Your task to perform on an android device: Toggle the flashlight Image 0: 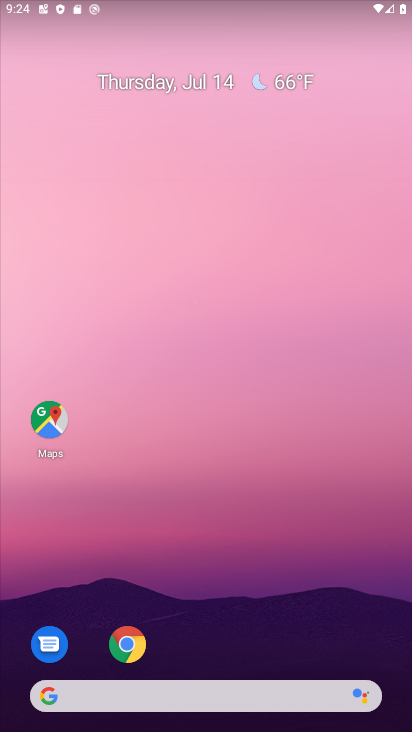
Step 0: drag from (276, 711) to (142, 110)
Your task to perform on an android device: Toggle the flashlight Image 1: 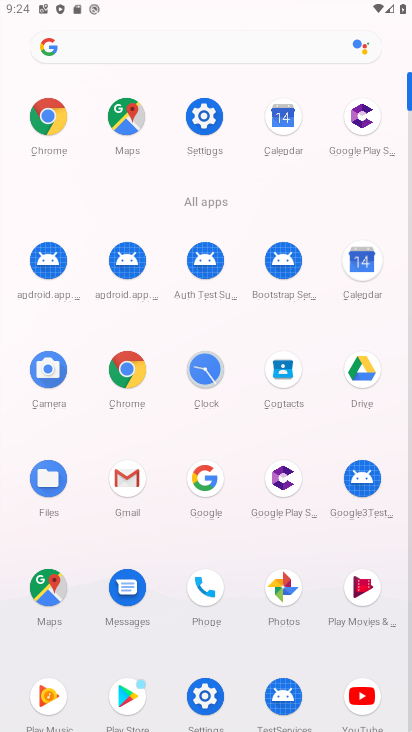
Step 1: drag from (223, 480) to (188, 138)
Your task to perform on an android device: Toggle the flashlight Image 2: 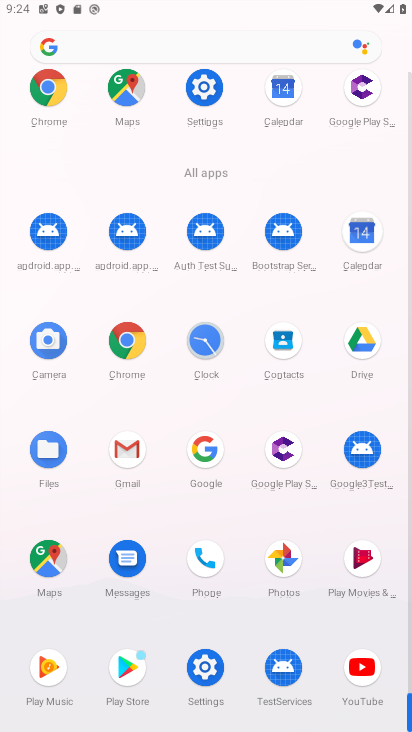
Step 2: click (192, 124)
Your task to perform on an android device: Toggle the flashlight Image 3: 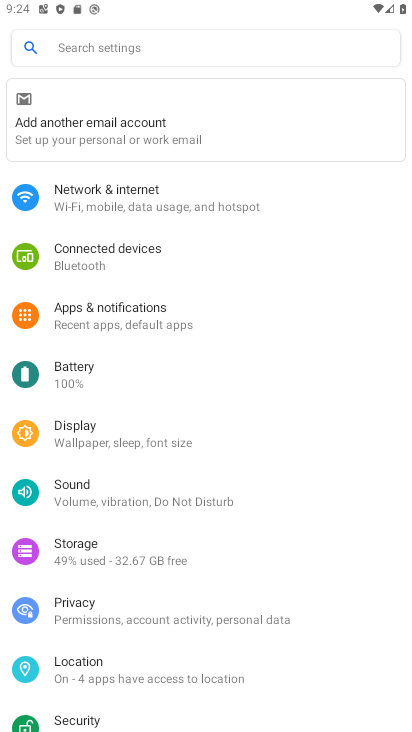
Step 3: task complete